Your task to perform on an android device: turn on javascript in the chrome app Image 0: 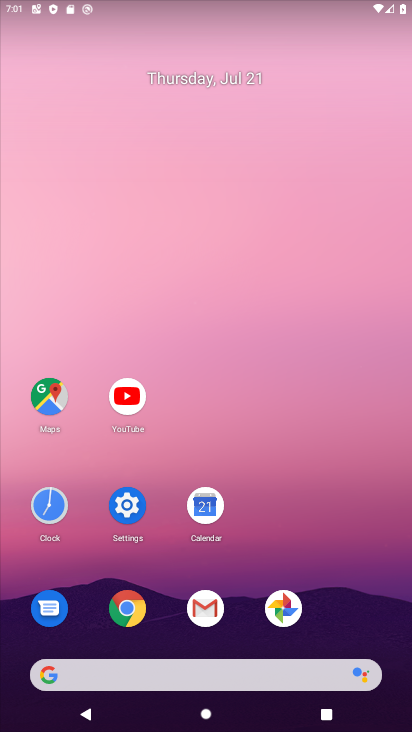
Step 0: click (126, 603)
Your task to perform on an android device: turn on javascript in the chrome app Image 1: 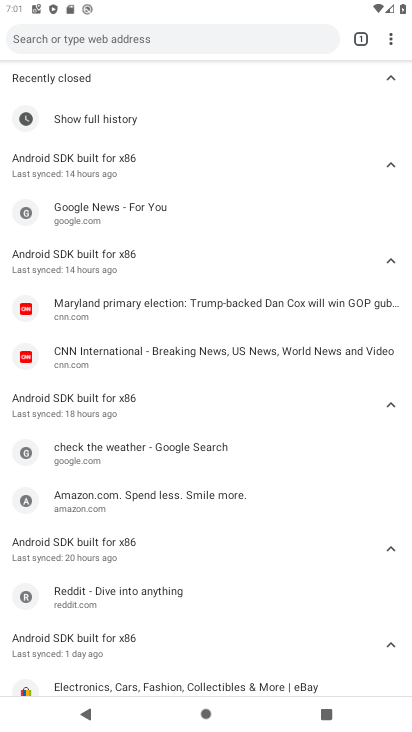
Step 1: click (391, 39)
Your task to perform on an android device: turn on javascript in the chrome app Image 2: 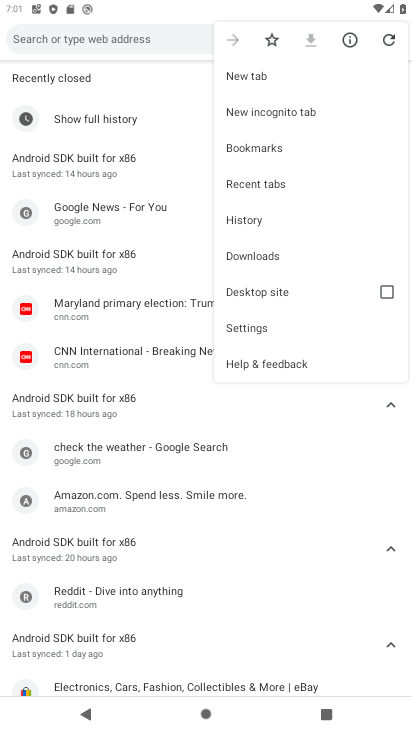
Step 2: click (245, 327)
Your task to perform on an android device: turn on javascript in the chrome app Image 3: 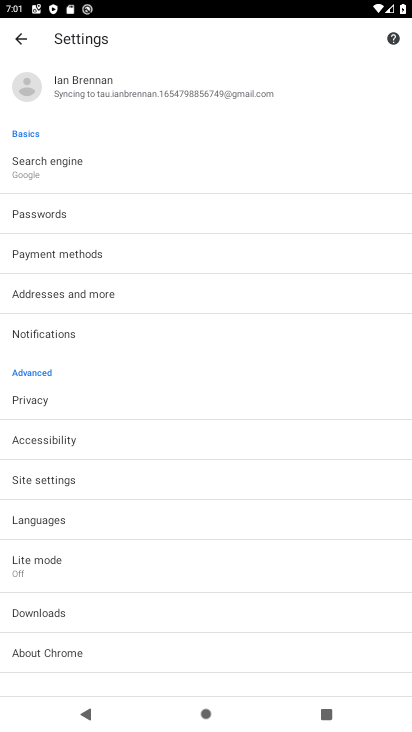
Step 3: click (54, 481)
Your task to perform on an android device: turn on javascript in the chrome app Image 4: 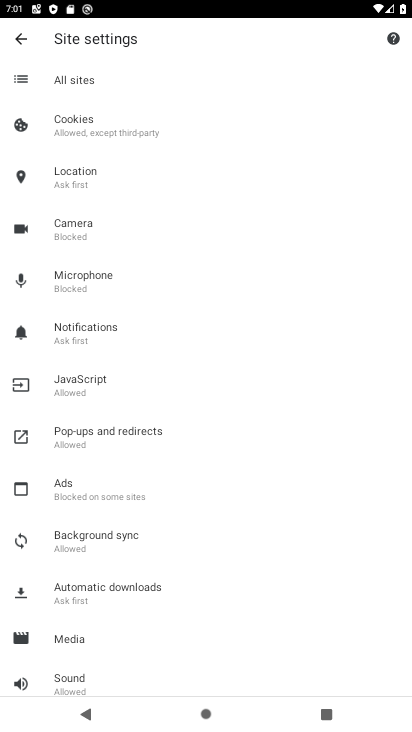
Step 4: click (75, 380)
Your task to perform on an android device: turn on javascript in the chrome app Image 5: 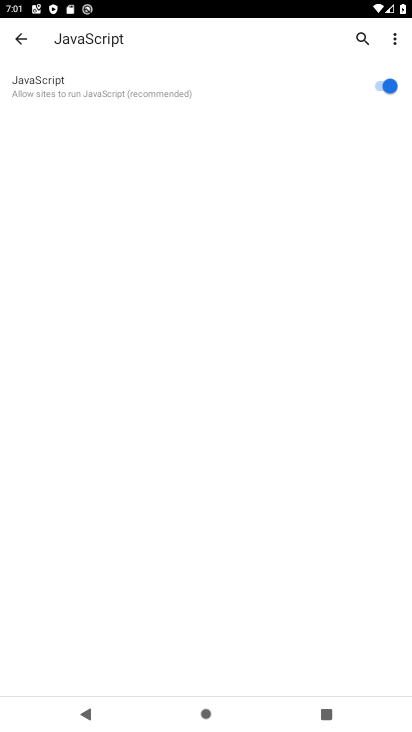
Step 5: task complete